Your task to perform on an android device: toggle sleep mode Image 0: 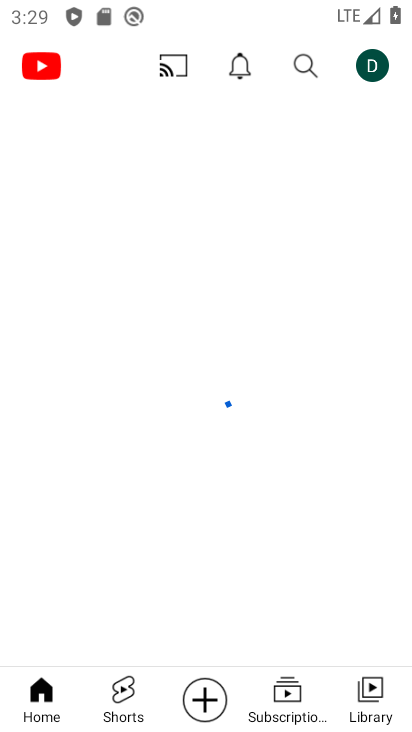
Step 0: press home button
Your task to perform on an android device: toggle sleep mode Image 1: 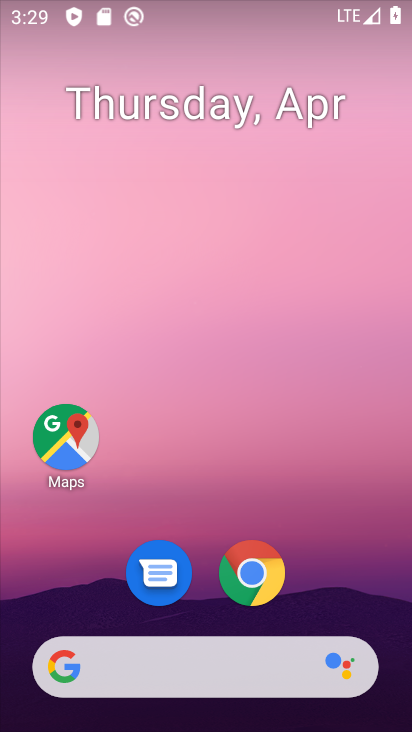
Step 1: drag from (349, 592) to (295, 46)
Your task to perform on an android device: toggle sleep mode Image 2: 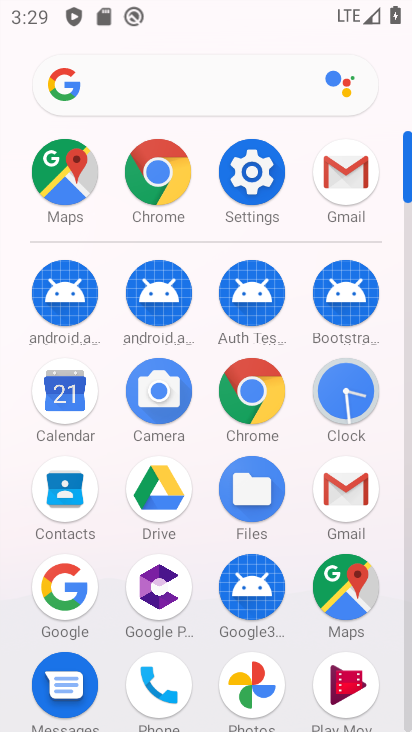
Step 2: click (241, 178)
Your task to perform on an android device: toggle sleep mode Image 3: 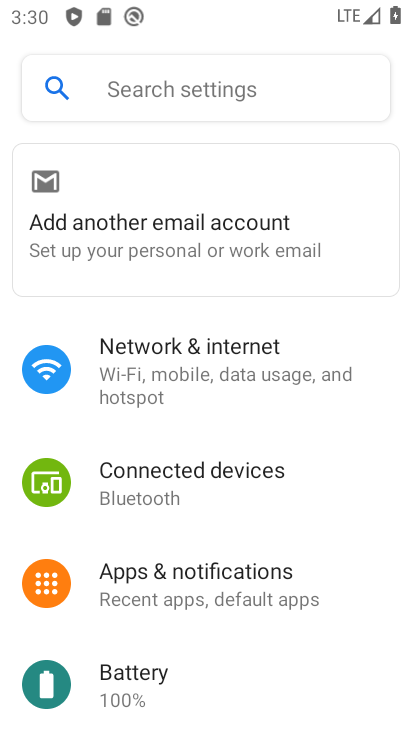
Step 3: task complete